Your task to perform on an android device: When is my next meeting? Image 0: 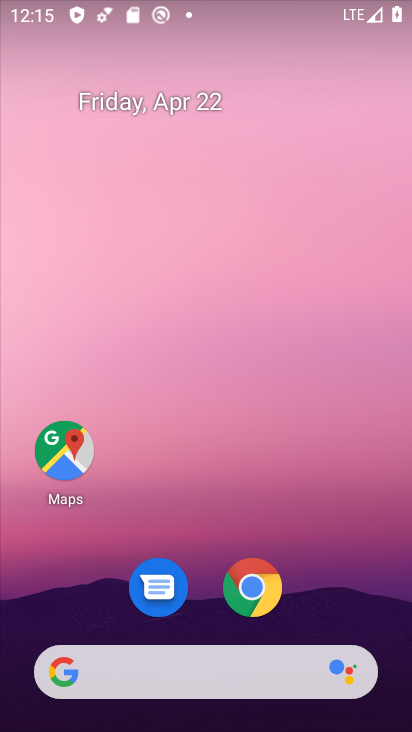
Step 0: drag from (178, 422) to (186, 237)
Your task to perform on an android device: When is my next meeting? Image 1: 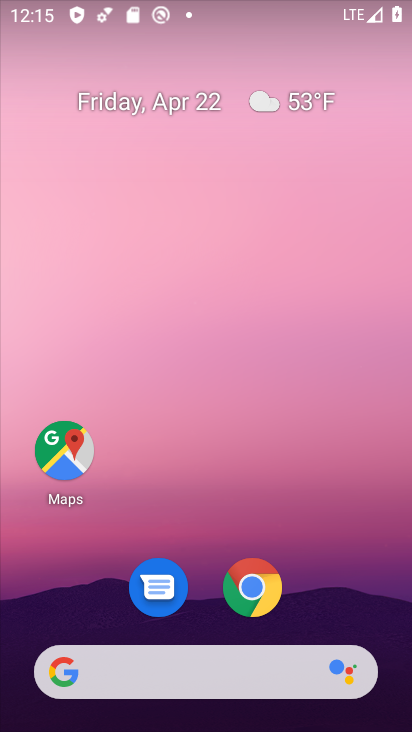
Step 1: drag from (210, 637) to (241, 134)
Your task to perform on an android device: When is my next meeting? Image 2: 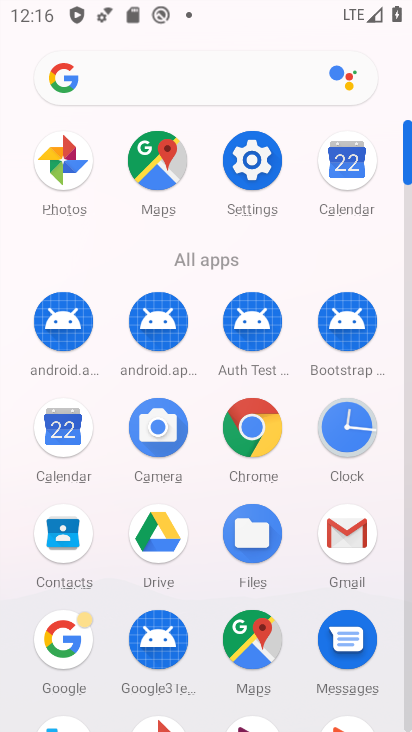
Step 2: click (74, 431)
Your task to perform on an android device: When is my next meeting? Image 3: 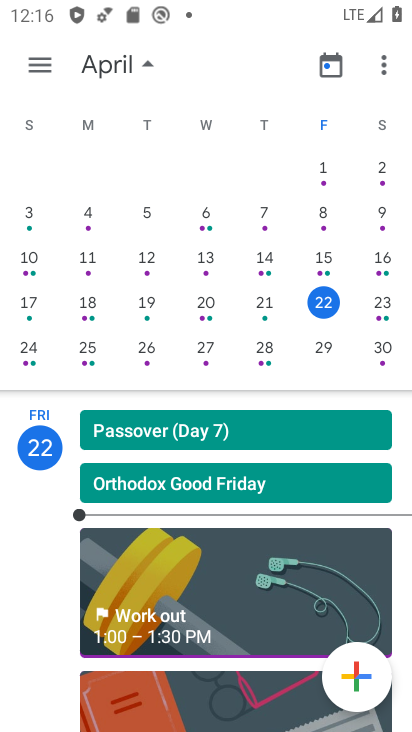
Step 3: click (53, 65)
Your task to perform on an android device: When is my next meeting? Image 4: 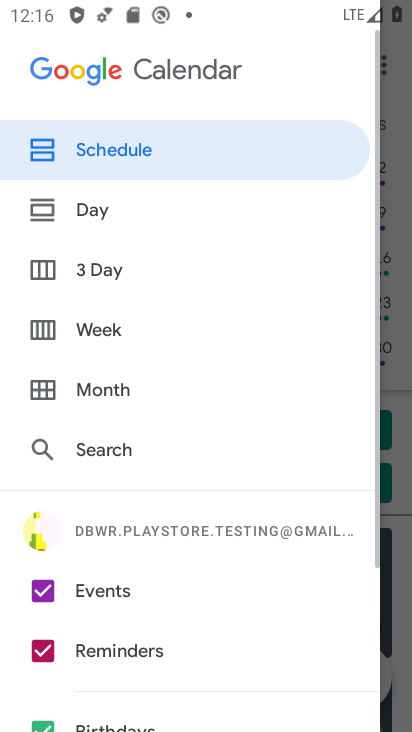
Step 4: drag from (174, 593) to (175, 395)
Your task to perform on an android device: When is my next meeting? Image 5: 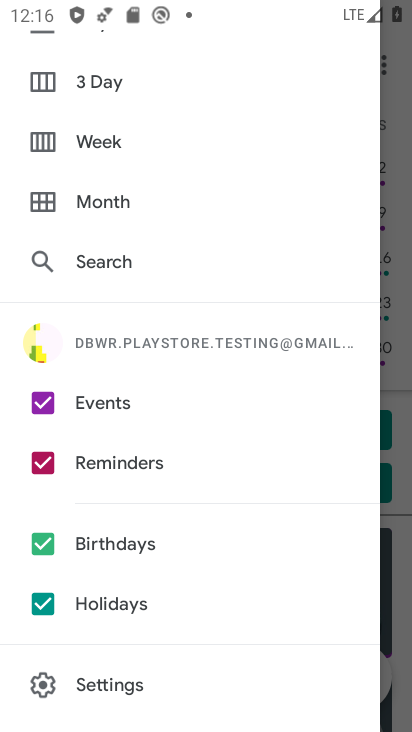
Step 5: click (36, 607)
Your task to perform on an android device: When is my next meeting? Image 6: 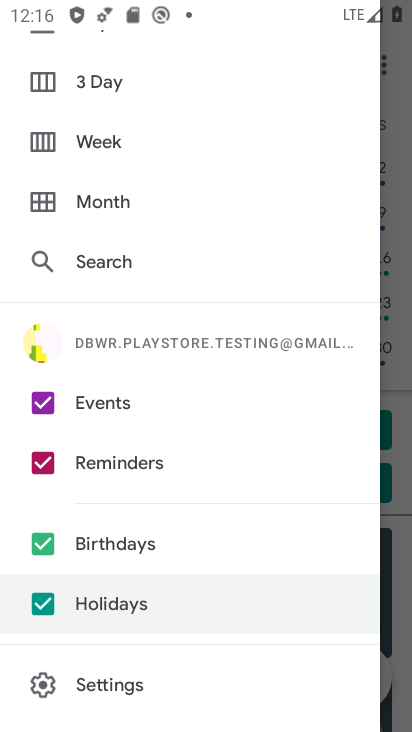
Step 6: click (43, 550)
Your task to perform on an android device: When is my next meeting? Image 7: 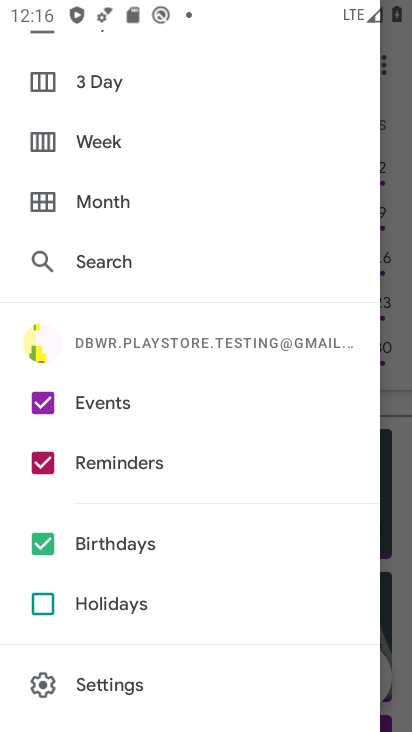
Step 7: click (46, 545)
Your task to perform on an android device: When is my next meeting? Image 8: 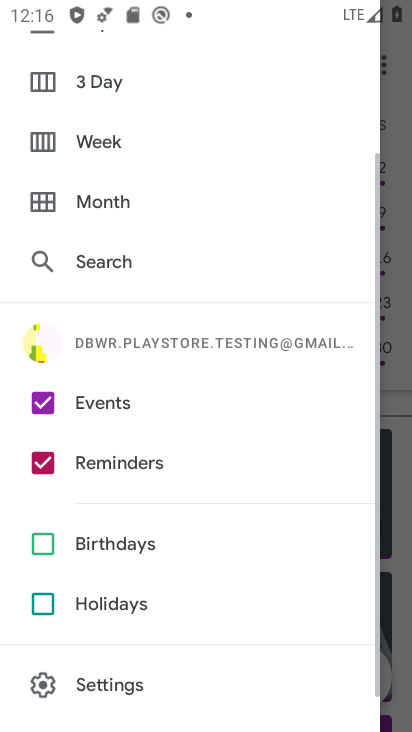
Step 8: drag from (113, 136) to (147, 440)
Your task to perform on an android device: When is my next meeting? Image 9: 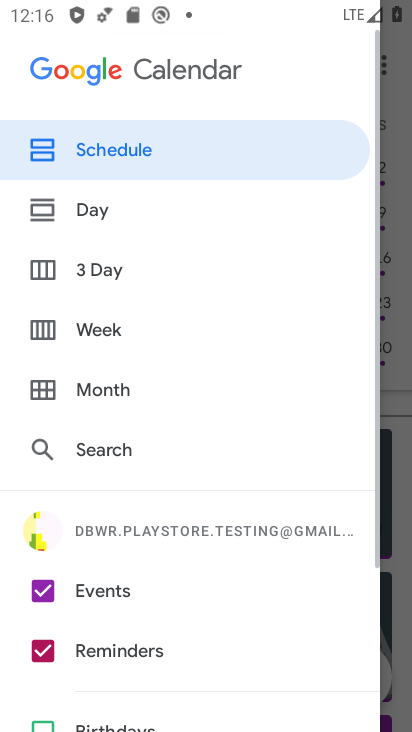
Step 9: click (73, 159)
Your task to perform on an android device: When is my next meeting? Image 10: 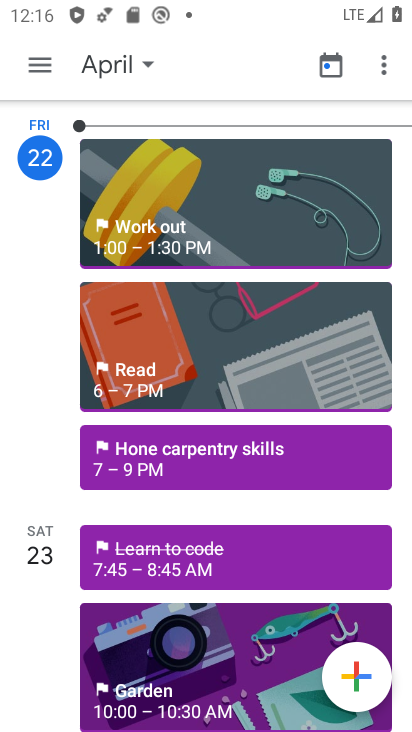
Step 10: click (126, 59)
Your task to perform on an android device: When is my next meeting? Image 11: 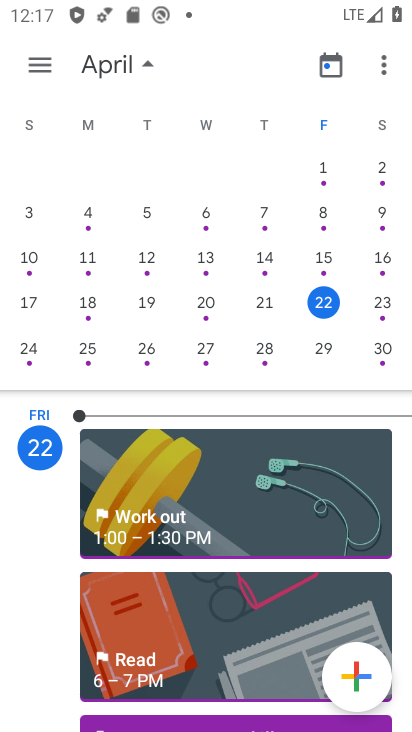
Step 11: click (385, 301)
Your task to perform on an android device: When is my next meeting? Image 12: 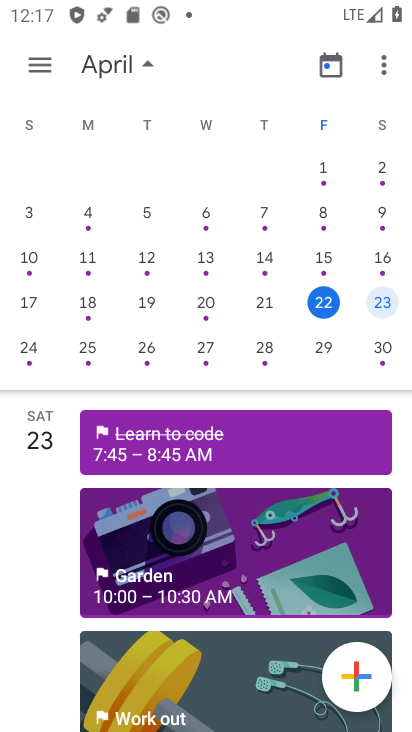
Step 12: click (28, 360)
Your task to perform on an android device: When is my next meeting? Image 13: 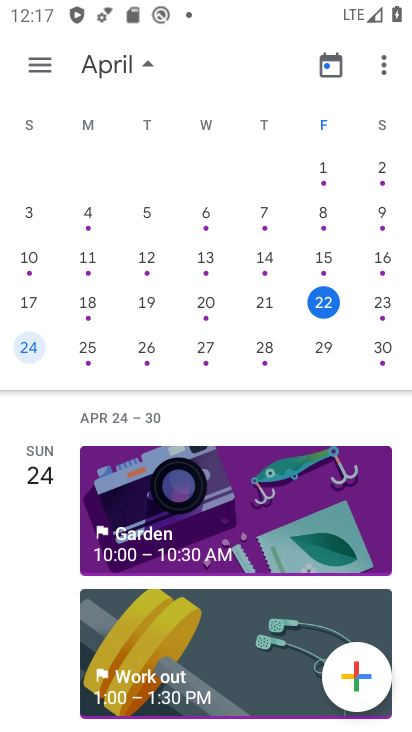
Step 13: click (74, 350)
Your task to perform on an android device: When is my next meeting? Image 14: 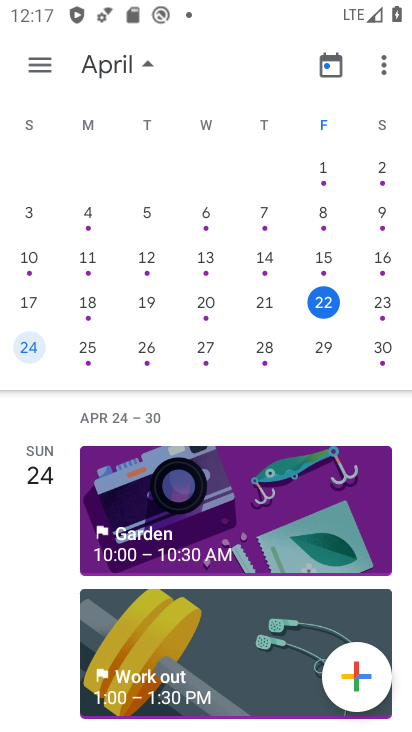
Step 14: click (137, 341)
Your task to perform on an android device: When is my next meeting? Image 15: 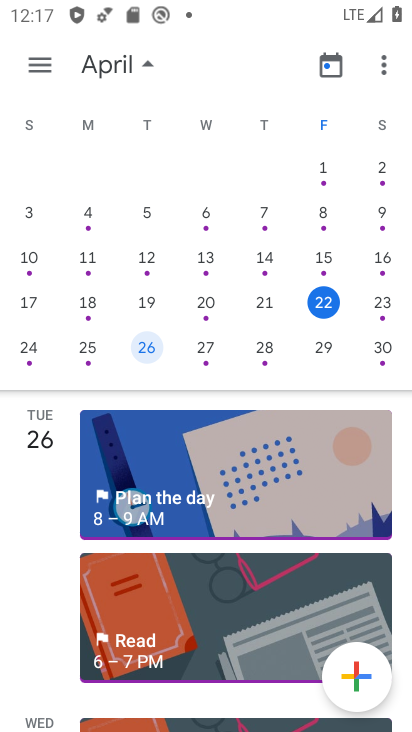
Step 15: click (214, 349)
Your task to perform on an android device: When is my next meeting? Image 16: 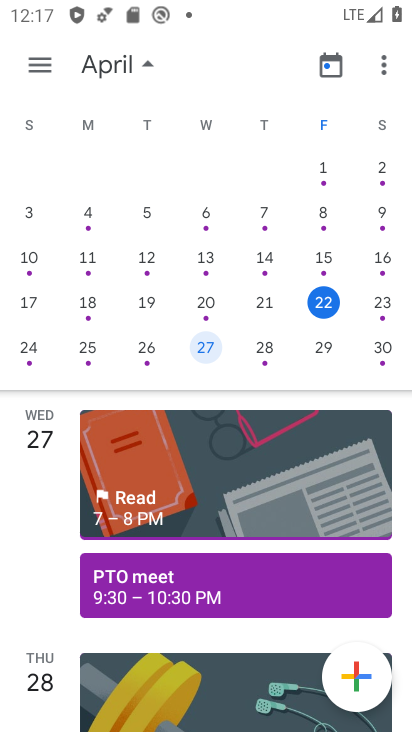
Step 16: click (270, 347)
Your task to perform on an android device: When is my next meeting? Image 17: 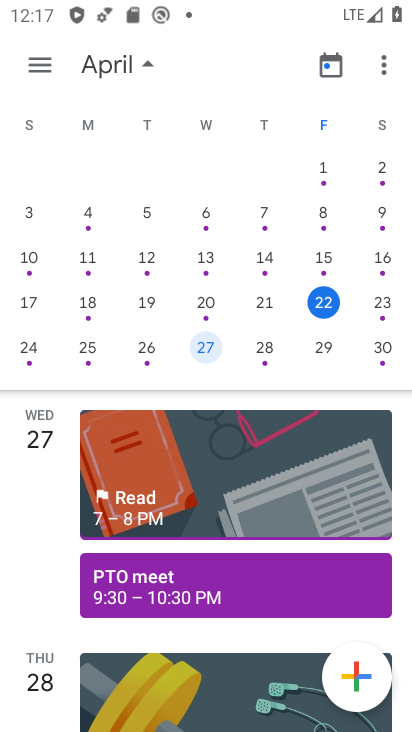
Step 17: task complete